Your task to perform on an android device: turn off priority inbox in the gmail app Image 0: 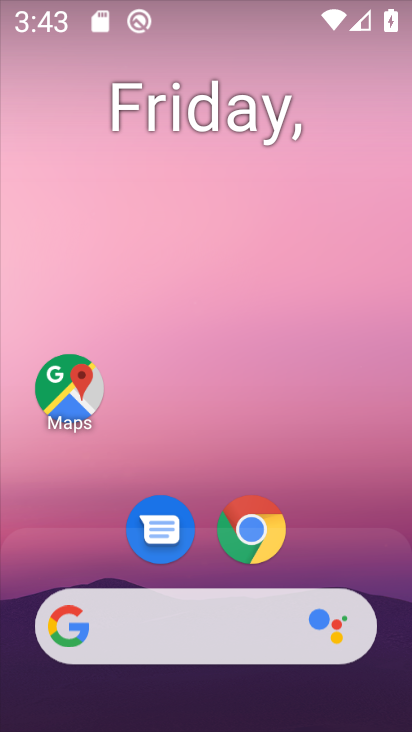
Step 0: drag from (38, 592) to (264, 123)
Your task to perform on an android device: turn off priority inbox in the gmail app Image 1: 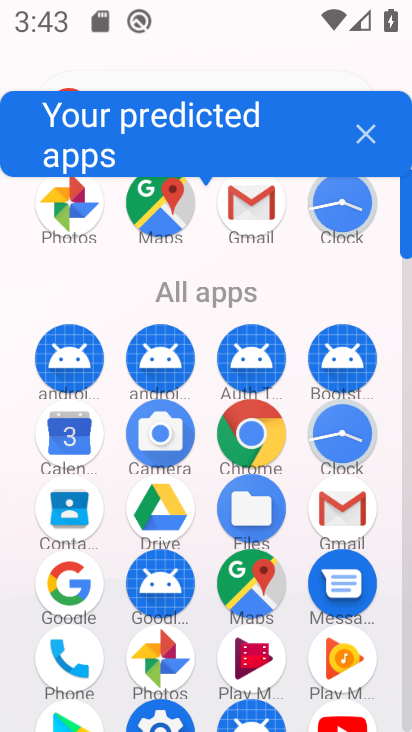
Step 1: click (344, 503)
Your task to perform on an android device: turn off priority inbox in the gmail app Image 2: 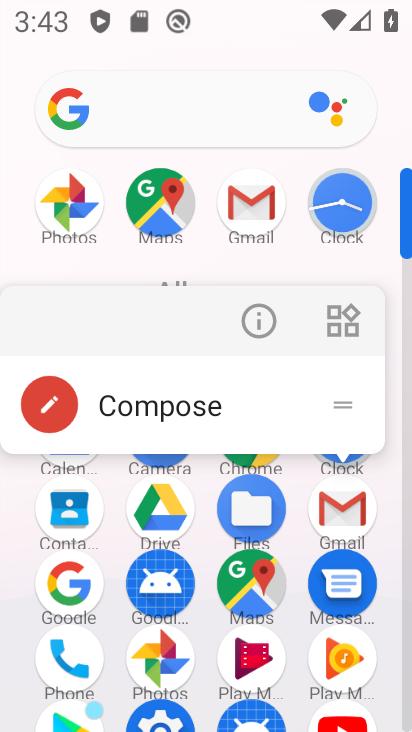
Step 2: click (365, 516)
Your task to perform on an android device: turn off priority inbox in the gmail app Image 3: 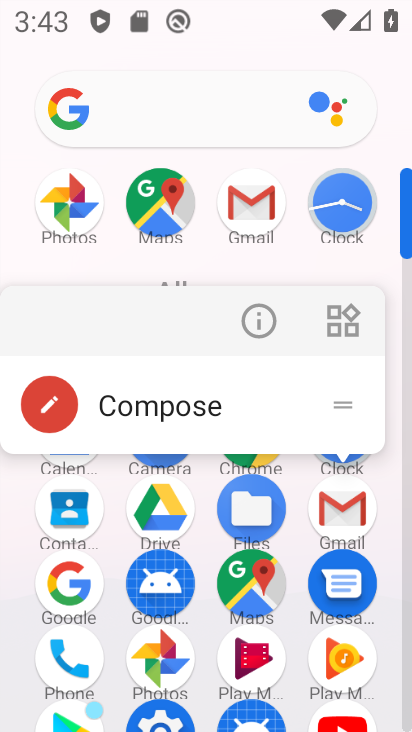
Step 3: click (365, 516)
Your task to perform on an android device: turn off priority inbox in the gmail app Image 4: 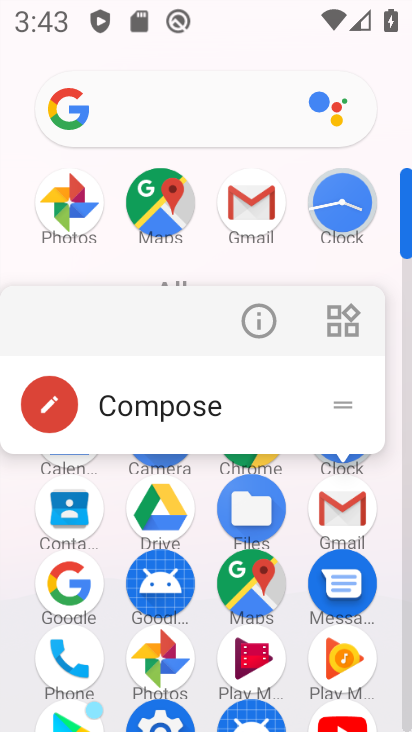
Step 4: click (349, 523)
Your task to perform on an android device: turn off priority inbox in the gmail app Image 5: 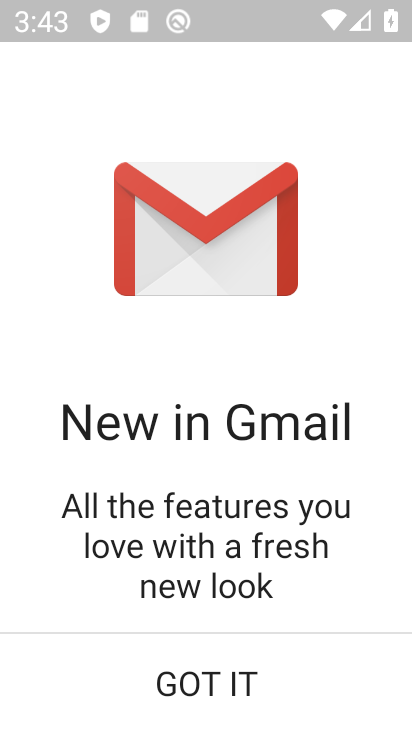
Step 5: click (199, 691)
Your task to perform on an android device: turn off priority inbox in the gmail app Image 6: 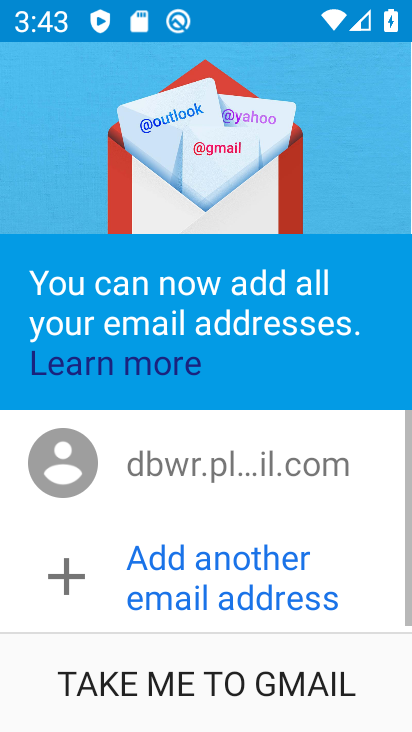
Step 6: click (208, 692)
Your task to perform on an android device: turn off priority inbox in the gmail app Image 7: 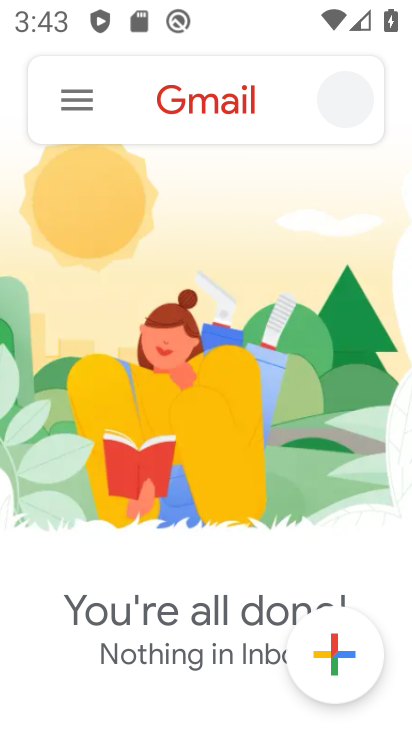
Step 7: click (81, 117)
Your task to perform on an android device: turn off priority inbox in the gmail app Image 8: 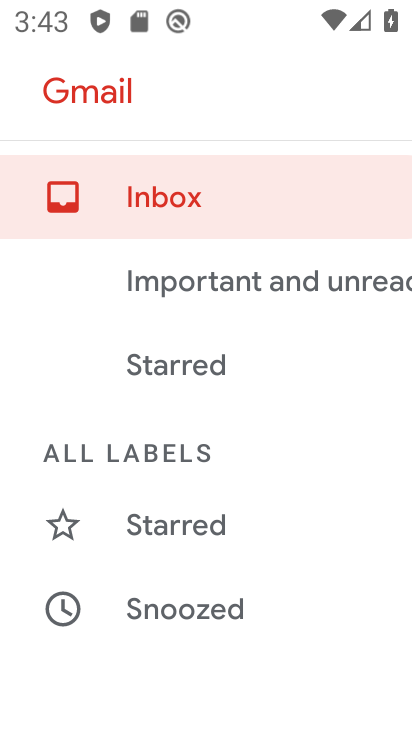
Step 8: drag from (158, 648) to (288, 215)
Your task to perform on an android device: turn off priority inbox in the gmail app Image 9: 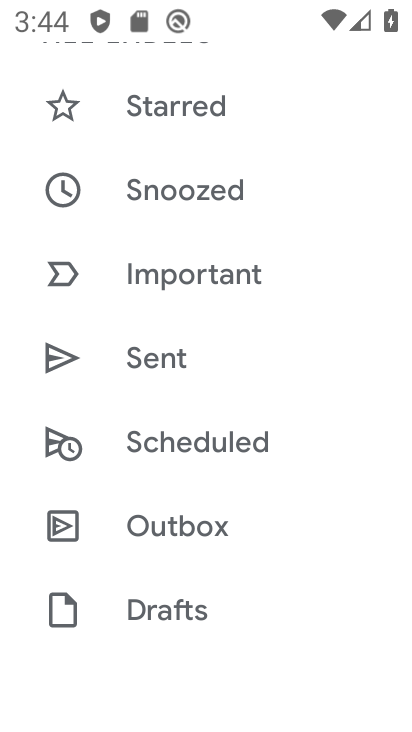
Step 9: drag from (230, 624) to (390, 221)
Your task to perform on an android device: turn off priority inbox in the gmail app Image 10: 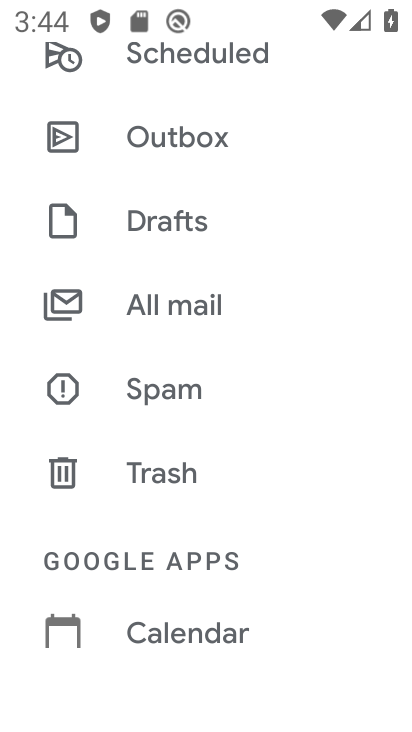
Step 10: drag from (220, 557) to (318, 186)
Your task to perform on an android device: turn off priority inbox in the gmail app Image 11: 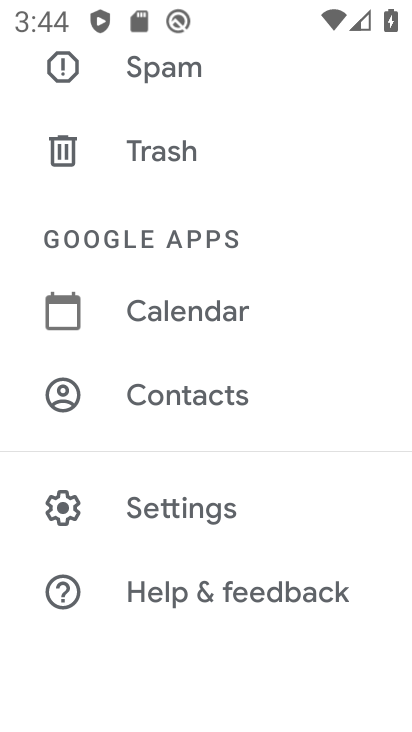
Step 11: click (255, 532)
Your task to perform on an android device: turn off priority inbox in the gmail app Image 12: 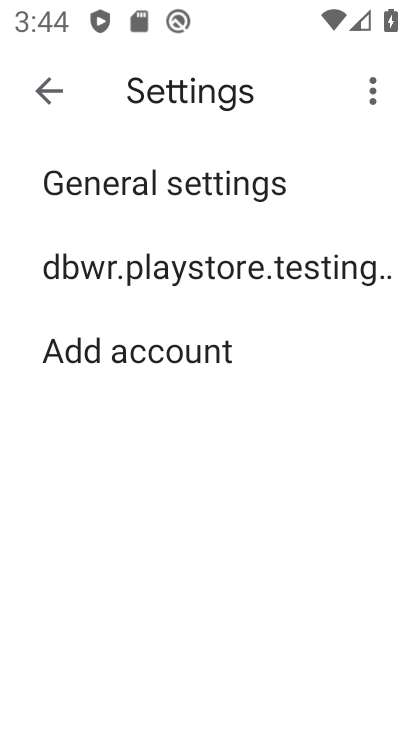
Step 12: click (285, 251)
Your task to perform on an android device: turn off priority inbox in the gmail app Image 13: 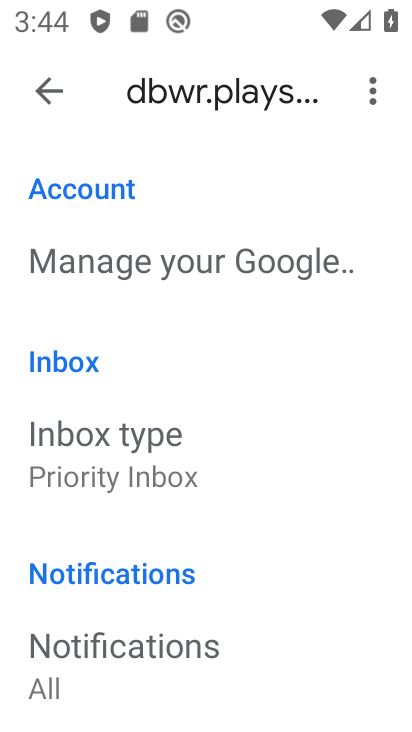
Step 13: click (234, 491)
Your task to perform on an android device: turn off priority inbox in the gmail app Image 14: 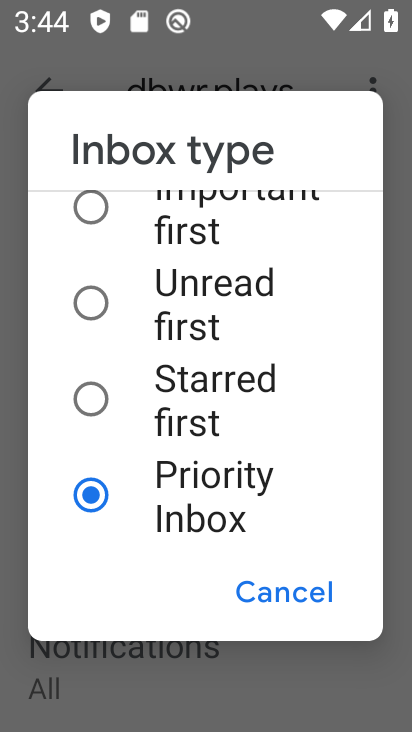
Step 14: drag from (211, 342) to (204, 563)
Your task to perform on an android device: turn off priority inbox in the gmail app Image 15: 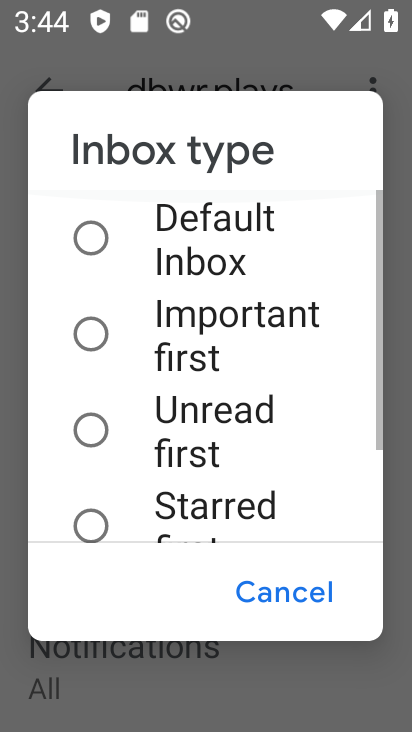
Step 15: drag from (192, 265) to (81, 296)
Your task to perform on an android device: turn off priority inbox in the gmail app Image 16: 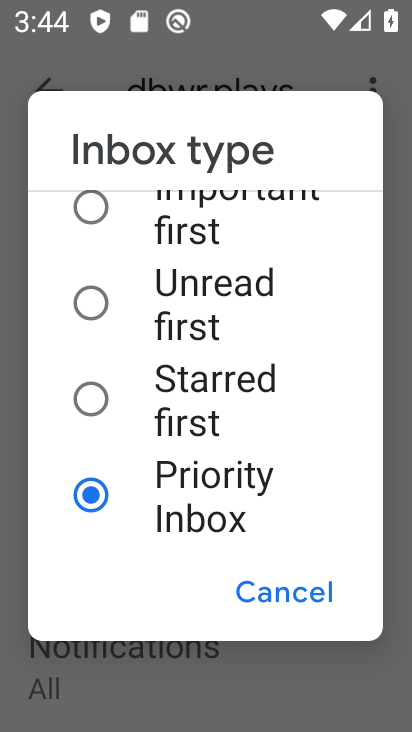
Step 16: click (97, 320)
Your task to perform on an android device: turn off priority inbox in the gmail app Image 17: 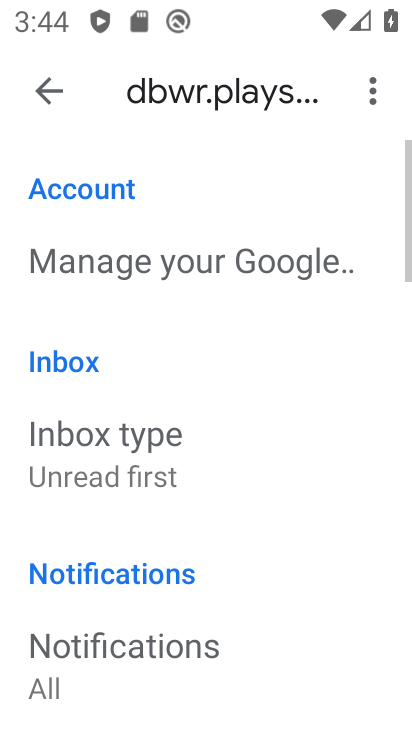
Step 17: task complete